Your task to perform on an android device: check data usage Image 0: 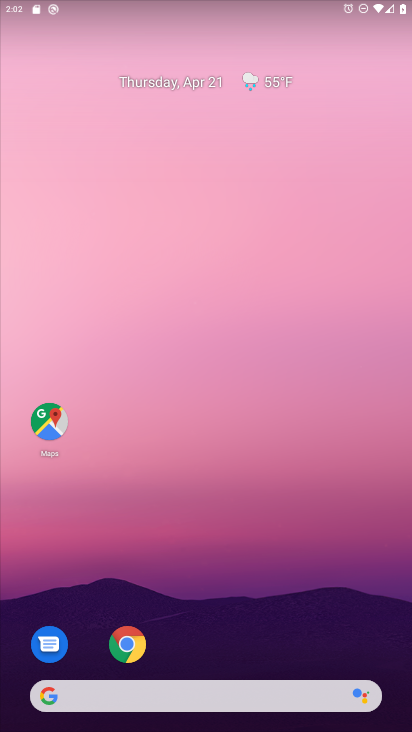
Step 0: drag from (315, 605) to (241, 192)
Your task to perform on an android device: check data usage Image 1: 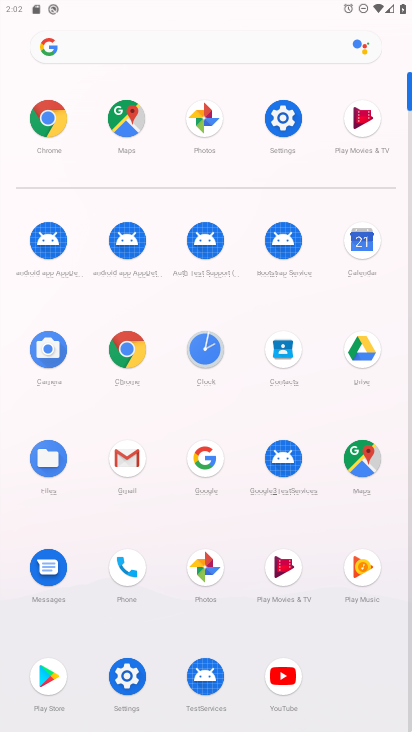
Step 1: click (272, 125)
Your task to perform on an android device: check data usage Image 2: 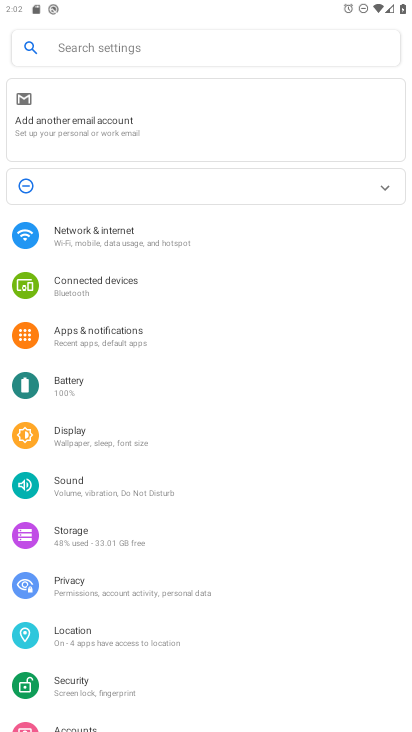
Step 2: click (193, 240)
Your task to perform on an android device: check data usage Image 3: 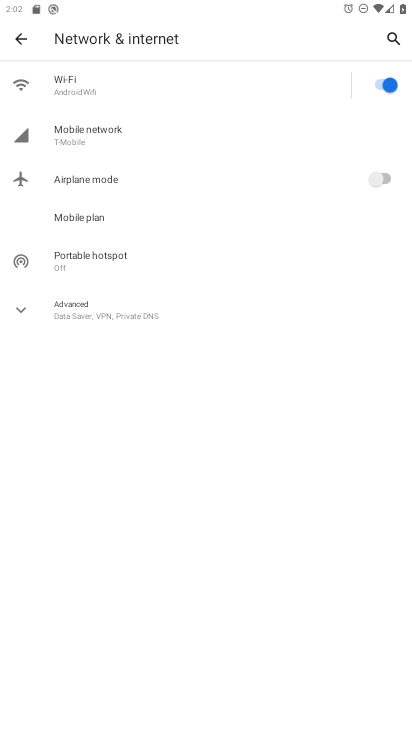
Step 3: click (142, 85)
Your task to perform on an android device: check data usage Image 4: 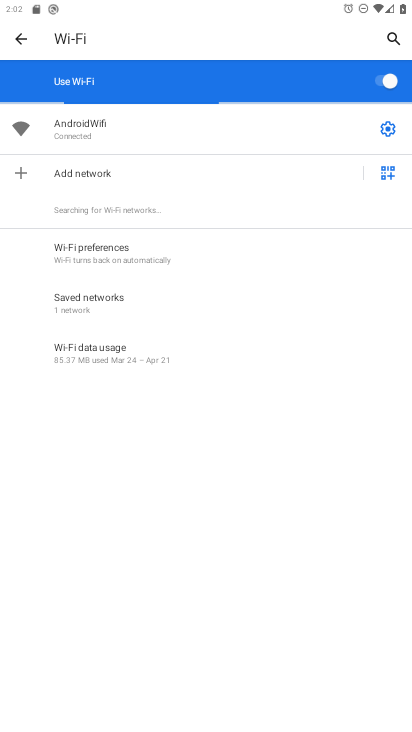
Step 4: click (142, 360)
Your task to perform on an android device: check data usage Image 5: 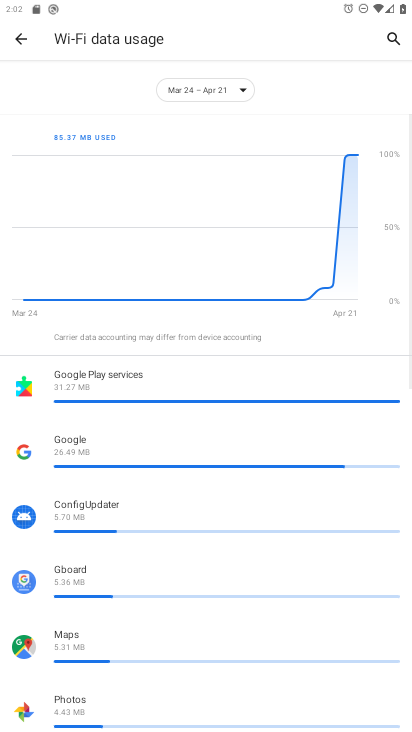
Step 5: task complete